Your task to perform on an android device: Go to Android settings Image 0: 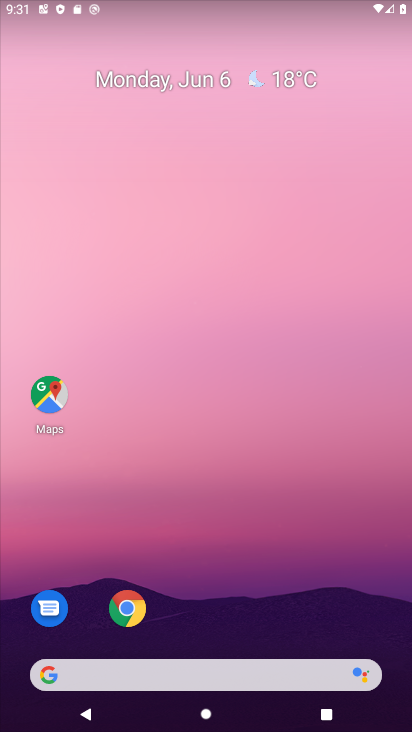
Step 0: drag from (267, 582) to (153, 75)
Your task to perform on an android device: Go to Android settings Image 1: 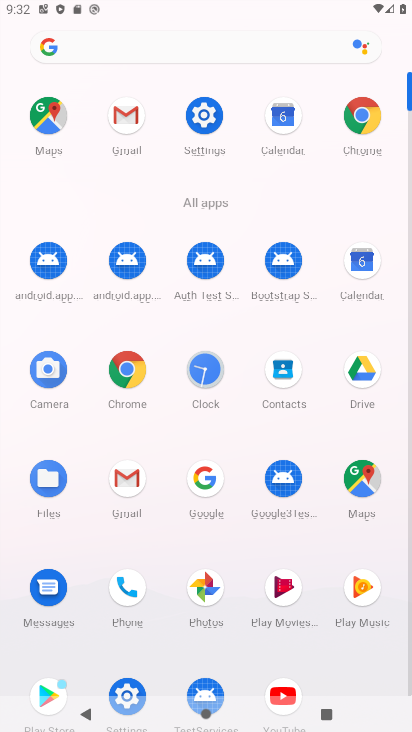
Step 1: click (206, 116)
Your task to perform on an android device: Go to Android settings Image 2: 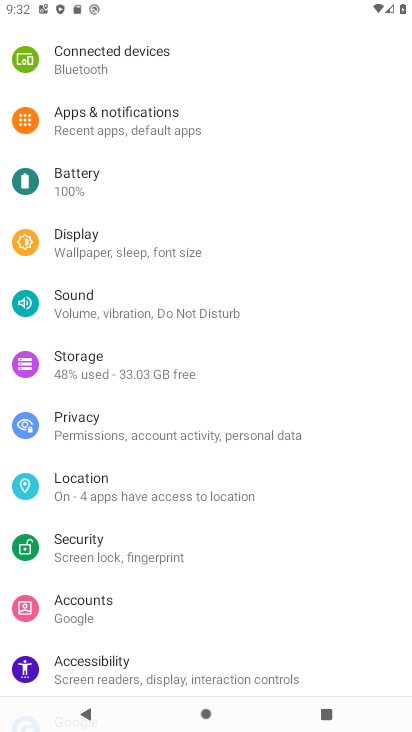
Step 2: task complete